Your task to perform on an android device: Open maps Image 0: 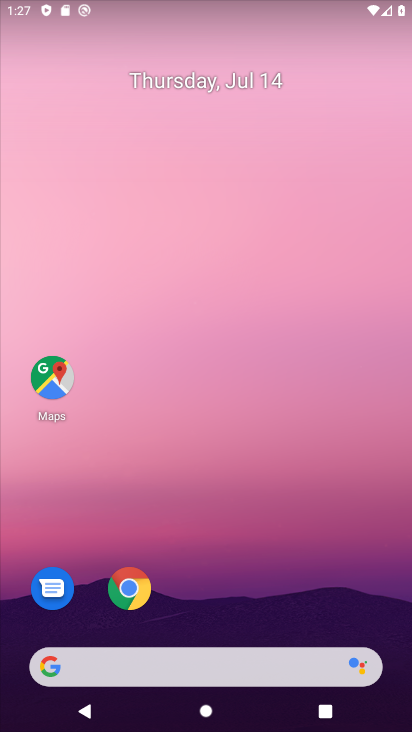
Step 0: drag from (322, 504) to (329, 2)
Your task to perform on an android device: Open maps Image 1: 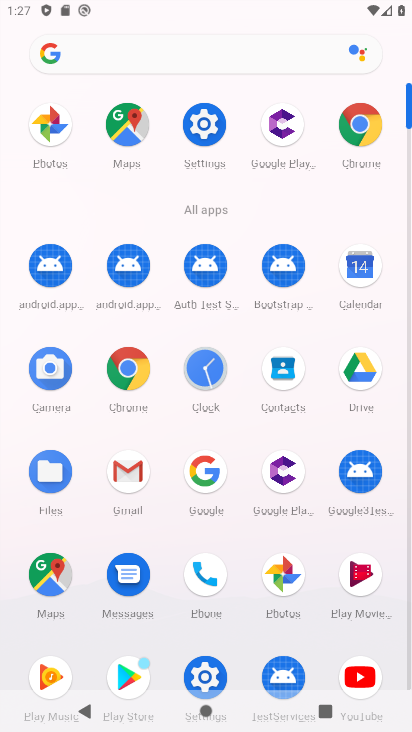
Step 1: click (52, 580)
Your task to perform on an android device: Open maps Image 2: 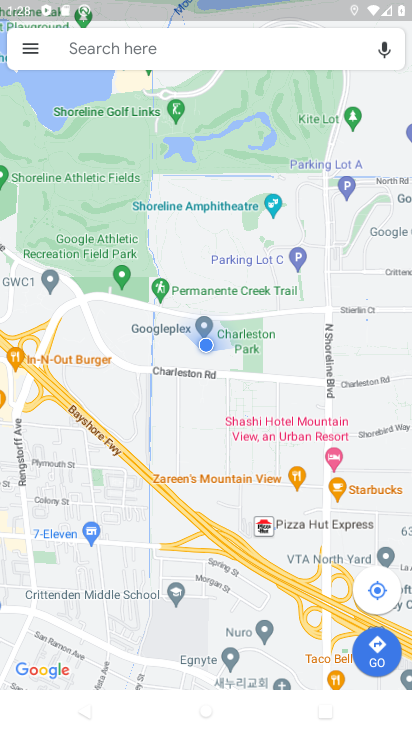
Step 2: task complete